Your task to perform on an android device: toggle priority inbox in the gmail app Image 0: 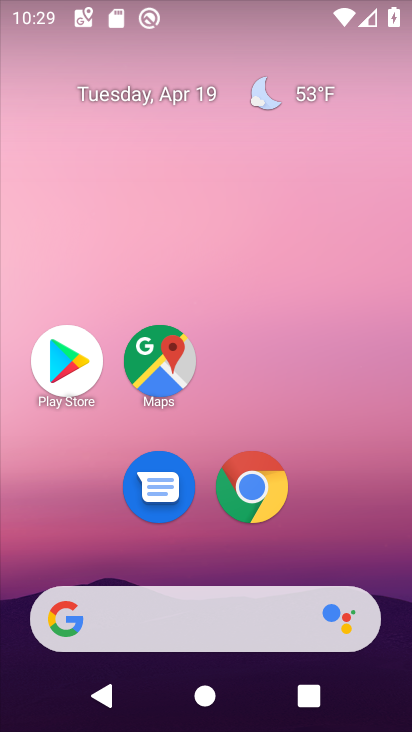
Step 0: drag from (394, 618) to (299, 12)
Your task to perform on an android device: toggle priority inbox in the gmail app Image 1: 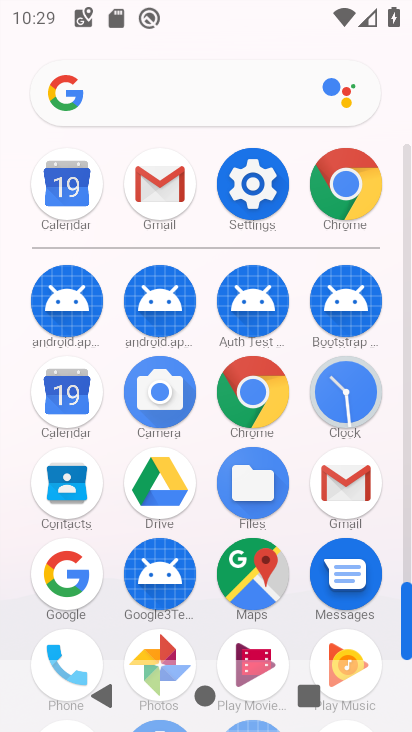
Step 1: drag from (21, 483) to (0, 117)
Your task to perform on an android device: toggle priority inbox in the gmail app Image 2: 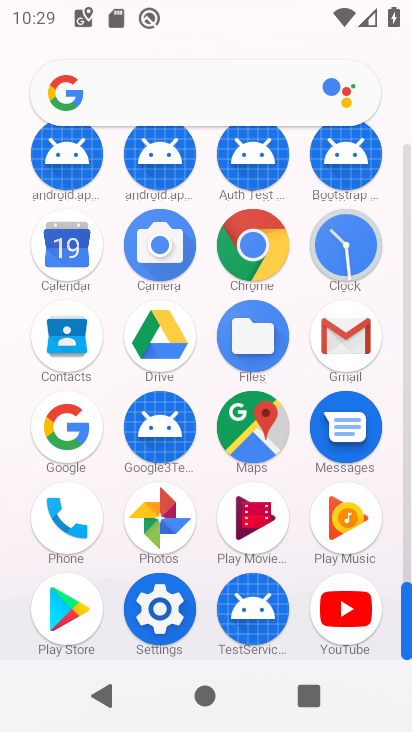
Step 2: drag from (16, 246) to (4, 539)
Your task to perform on an android device: toggle priority inbox in the gmail app Image 3: 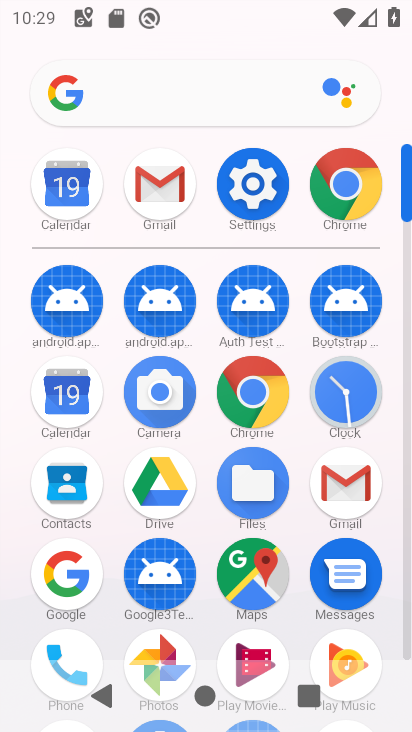
Step 3: click (342, 474)
Your task to perform on an android device: toggle priority inbox in the gmail app Image 4: 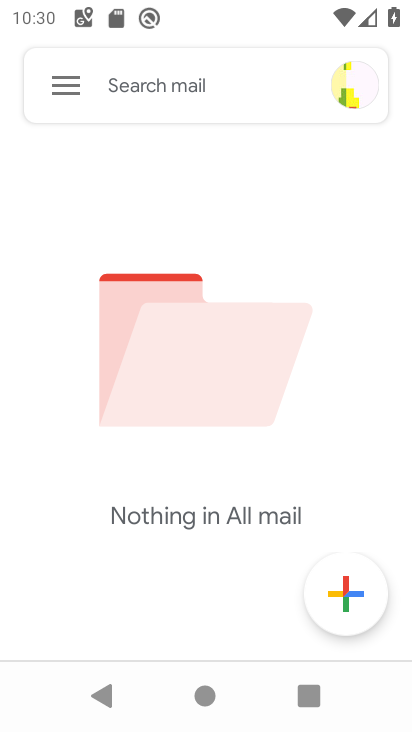
Step 4: click (61, 86)
Your task to perform on an android device: toggle priority inbox in the gmail app Image 5: 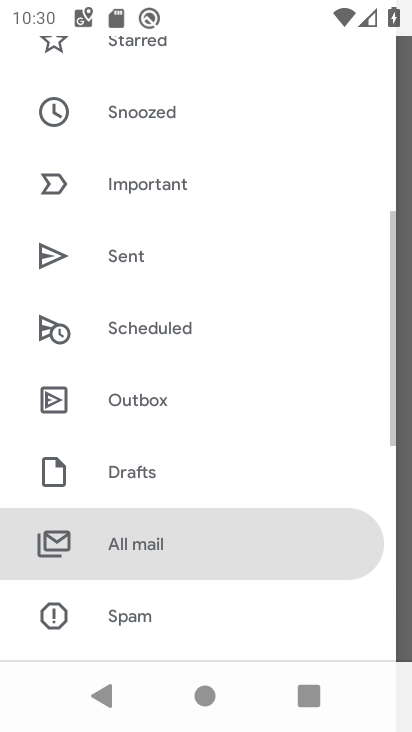
Step 5: drag from (209, 559) to (201, 153)
Your task to perform on an android device: toggle priority inbox in the gmail app Image 6: 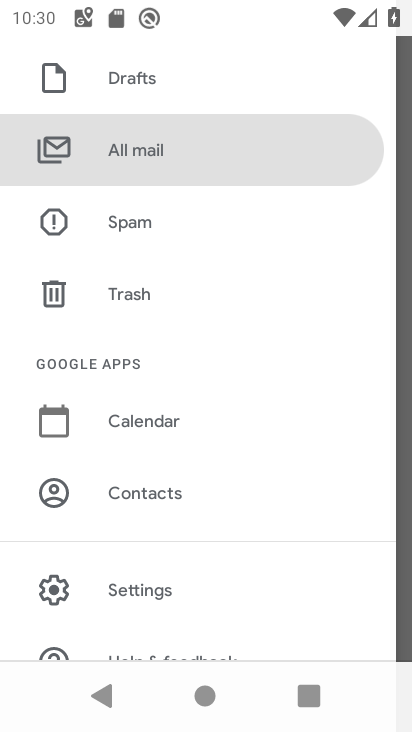
Step 6: click (162, 595)
Your task to perform on an android device: toggle priority inbox in the gmail app Image 7: 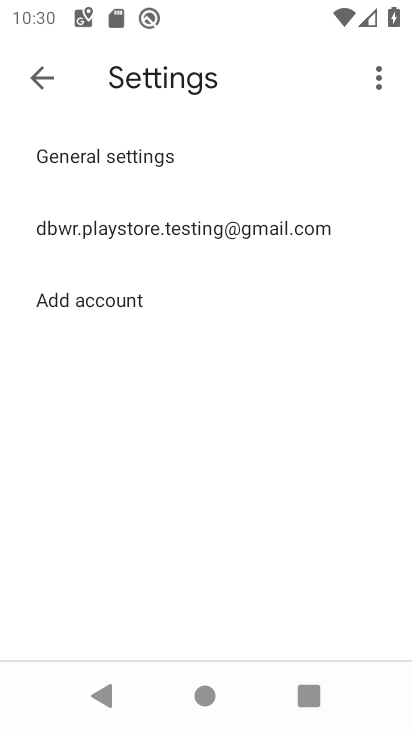
Step 7: click (163, 226)
Your task to perform on an android device: toggle priority inbox in the gmail app Image 8: 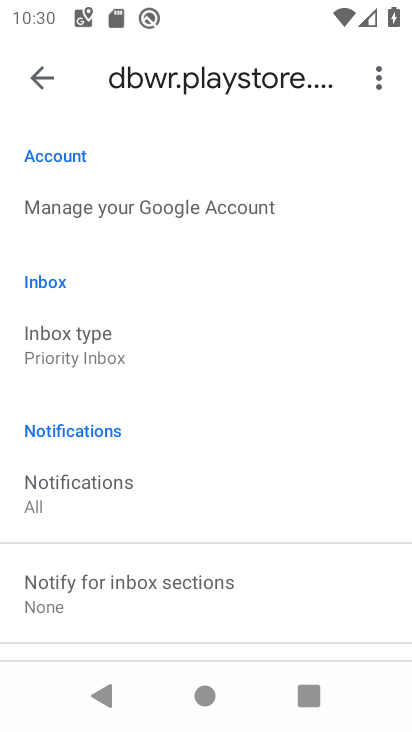
Step 8: click (122, 339)
Your task to perform on an android device: toggle priority inbox in the gmail app Image 9: 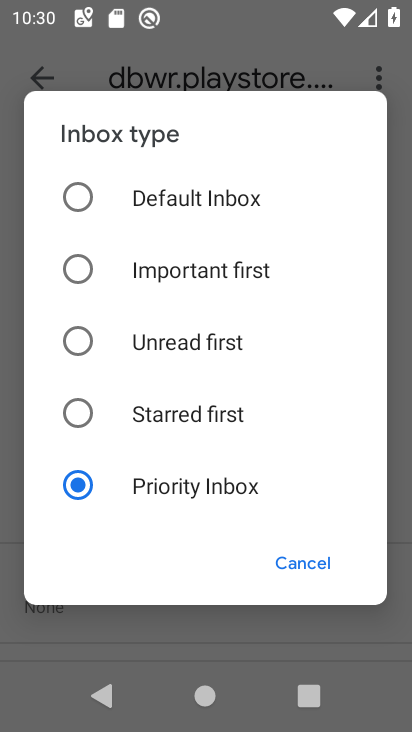
Step 9: click (141, 414)
Your task to perform on an android device: toggle priority inbox in the gmail app Image 10: 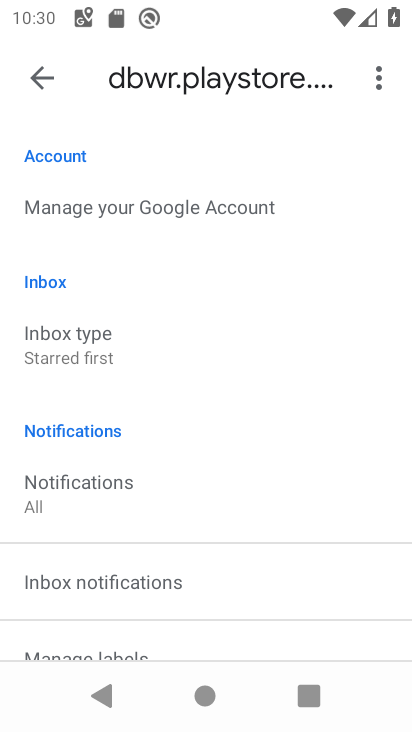
Step 10: task complete